Your task to perform on an android device: turn on improve location accuracy Image 0: 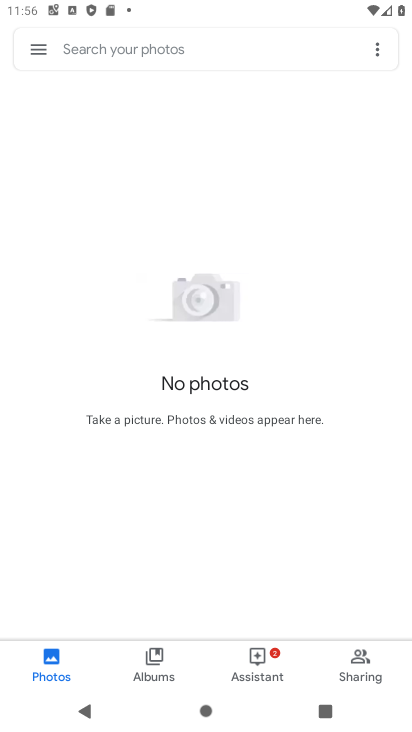
Step 0: press home button
Your task to perform on an android device: turn on improve location accuracy Image 1: 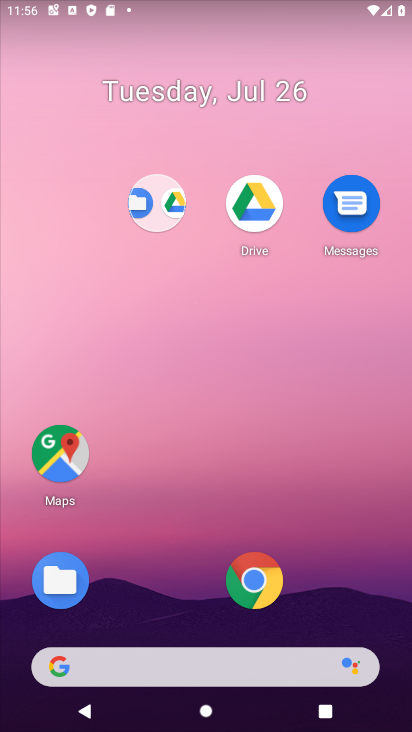
Step 1: drag from (159, 610) to (265, 71)
Your task to perform on an android device: turn on improve location accuracy Image 2: 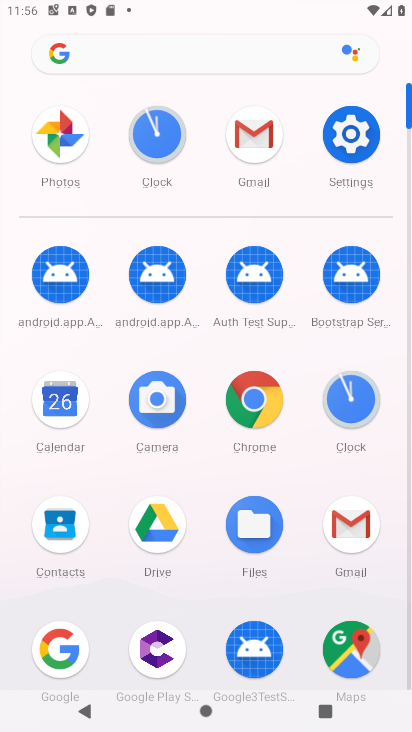
Step 2: click (338, 142)
Your task to perform on an android device: turn on improve location accuracy Image 3: 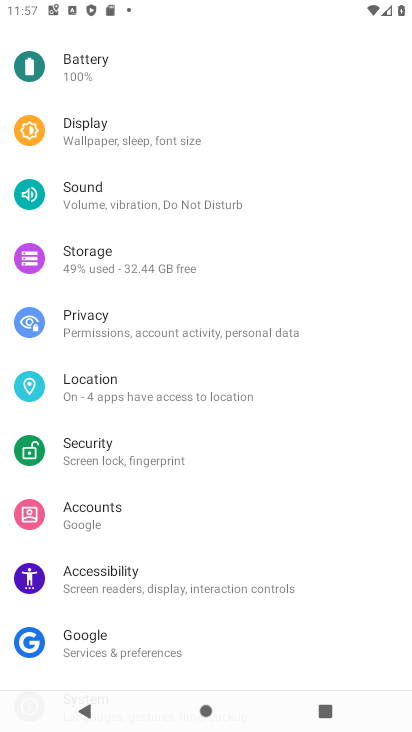
Step 3: click (140, 397)
Your task to perform on an android device: turn on improve location accuracy Image 4: 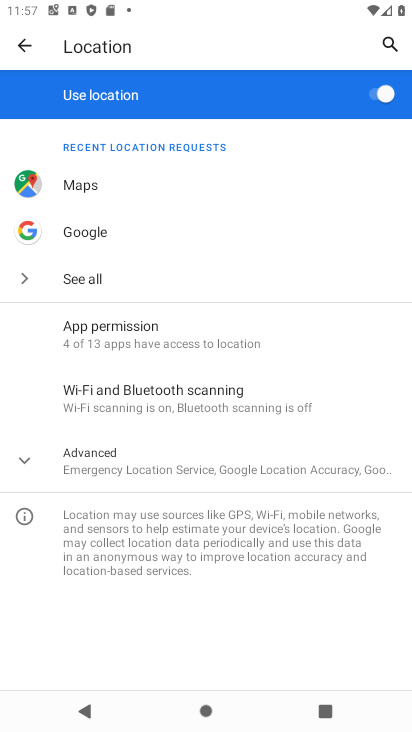
Step 4: click (114, 459)
Your task to perform on an android device: turn on improve location accuracy Image 5: 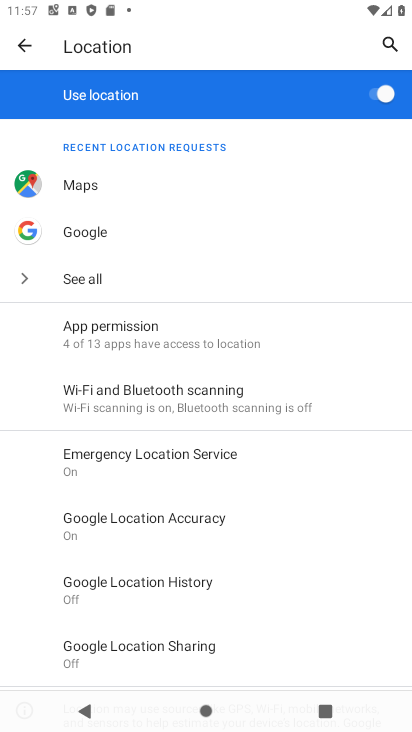
Step 5: click (174, 527)
Your task to perform on an android device: turn on improve location accuracy Image 6: 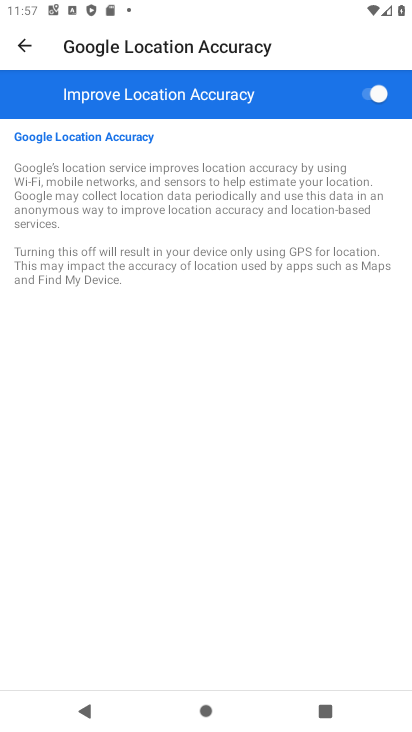
Step 6: task complete